Your task to perform on an android device: refresh tabs in the chrome app Image 0: 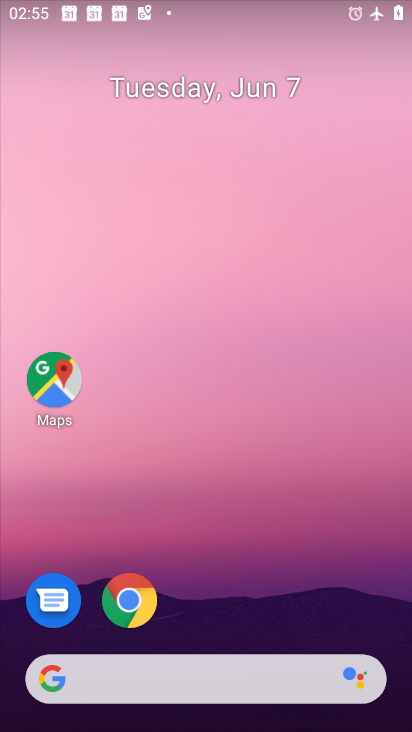
Step 0: click (122, 598)
Your task to perform on an android device: refresh tabs in the chrome app Image 1: 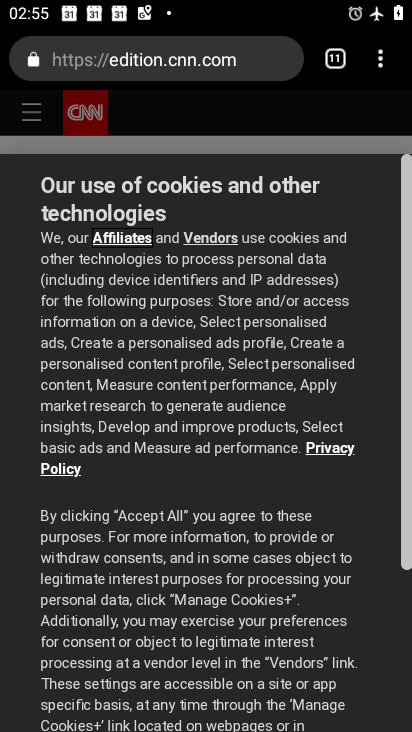
Step 1: click (382, 65)
Your task to perform on an android device: refresh tabs in the chrome app Image 2: 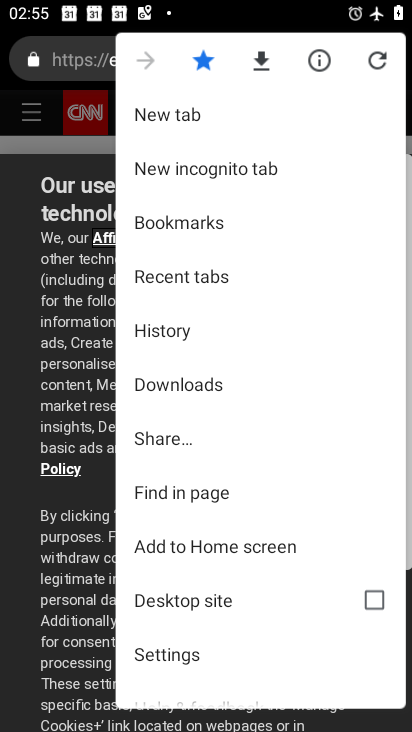
Step 2: click (379, 57)
Your task to perform on an android device: refresh tabs in the chrome app Image 3: 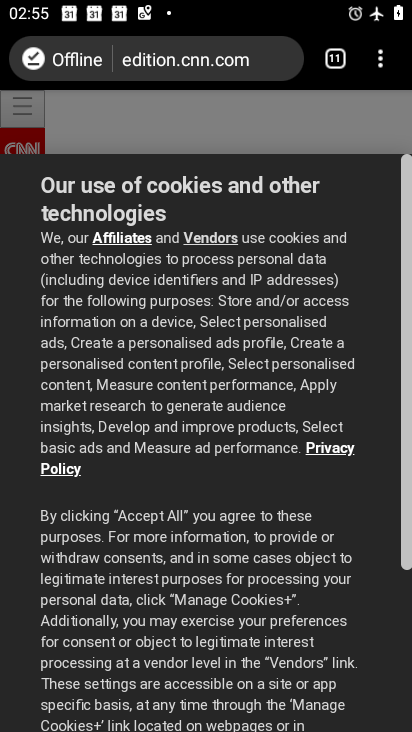
Step 3: task complete